Your task to perform on an android device: Open location settings Image 0: 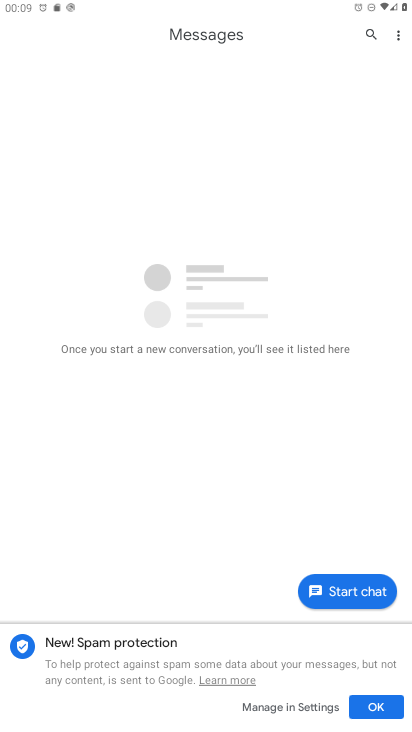
Step 0: press home button
Your task to perform on an android device: Open location settings Image 1: 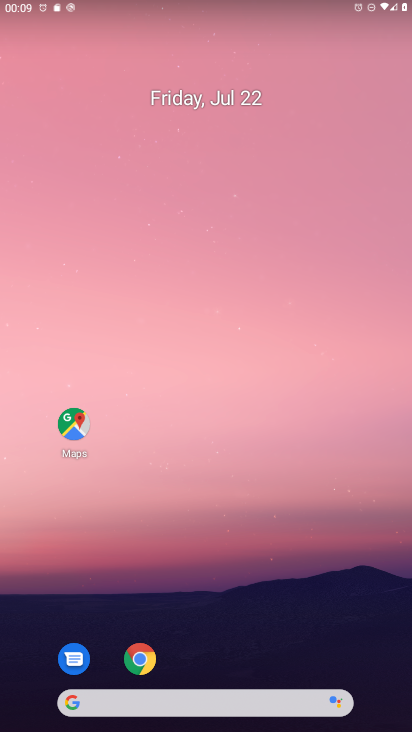
Step 1: drag from (197, 700) to (168, 75)
Your task to perform on an android device: Open location settings Image 2: 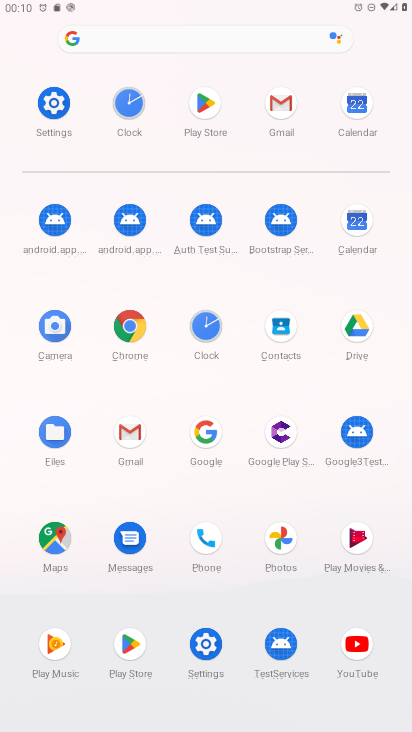
Step 2: click (56, 104)
Your task to perform on an android device: Open location settings Image 3: 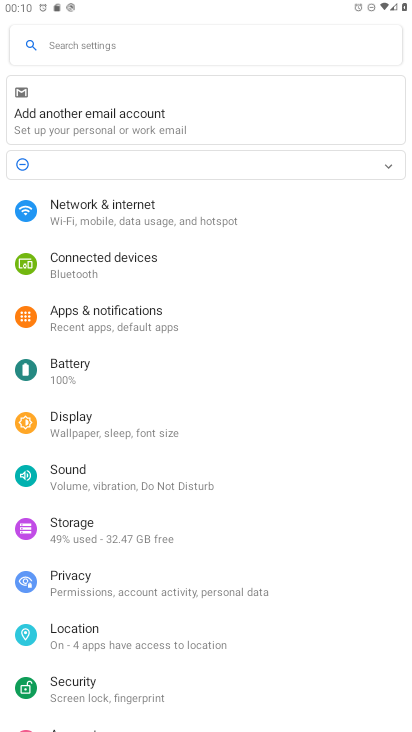
Step 3: click (112, 643)
Your task to perform on an android device: Open location settings Image 4: 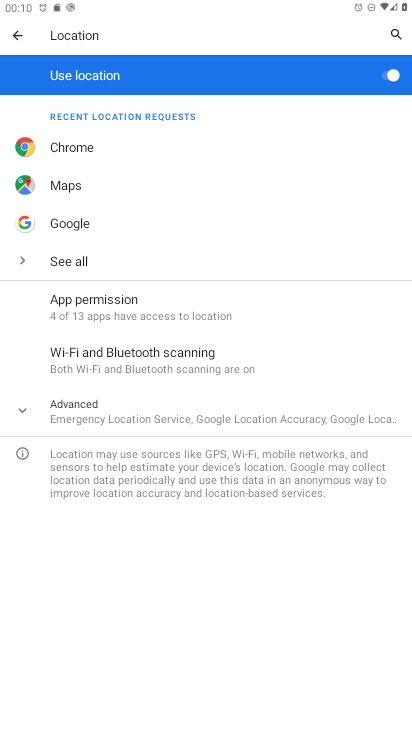
Step 4: task complete